Your task to perform on an android device: Open Chrome and go to settings Image 0: 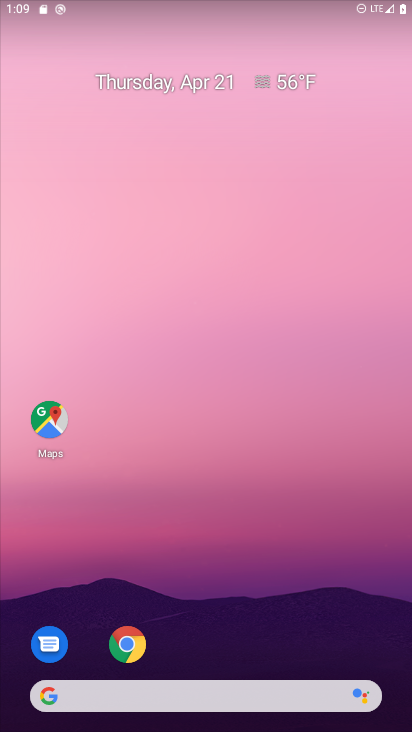
Step 0: click (133, 649)
Your task to perform on an android device: Open Chrome and go to settings Image 1: 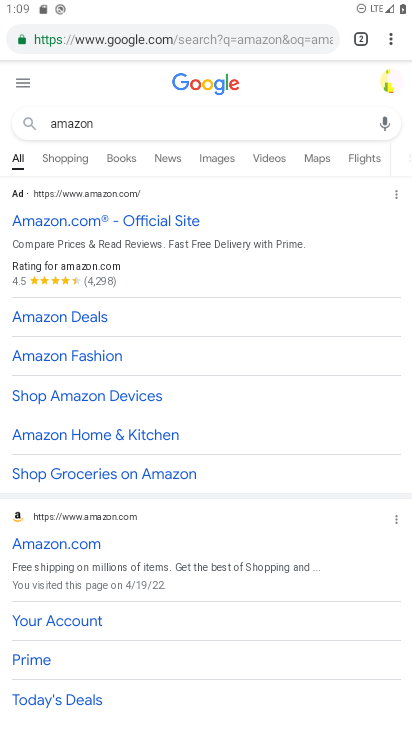
Step 1: click (383, 42)
Your task to perform on an android device: Open Chrome and go to settings Image 2: 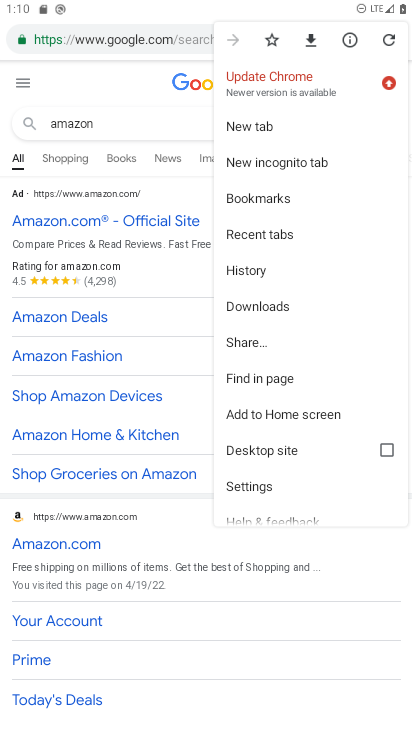
Step 2: click (269, 481)
Your task to perform on an android device: Open Chrome and go to settings Image 3: 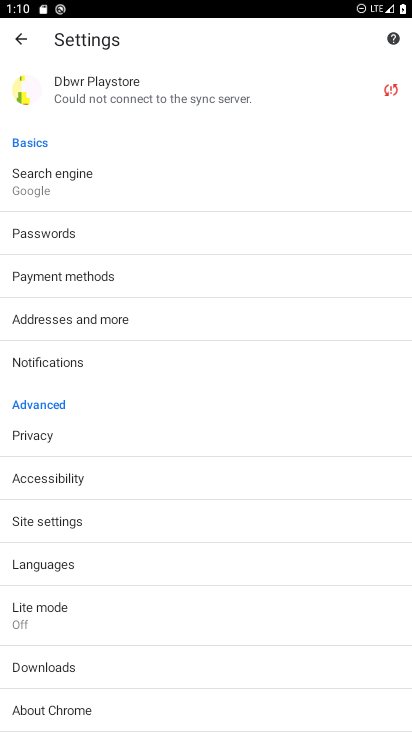
Step 3: task complete